Your task to perform on an android device: star an email in the gmail app Image 0: 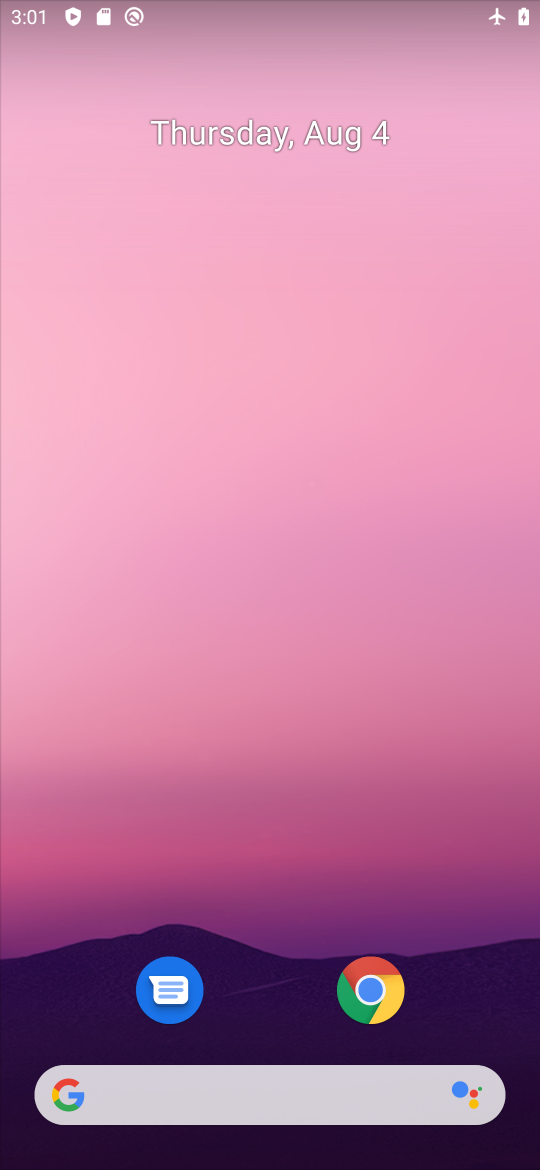
Step 0: task complete